Your task to perform on an android device: Open privacy settings Image 0: 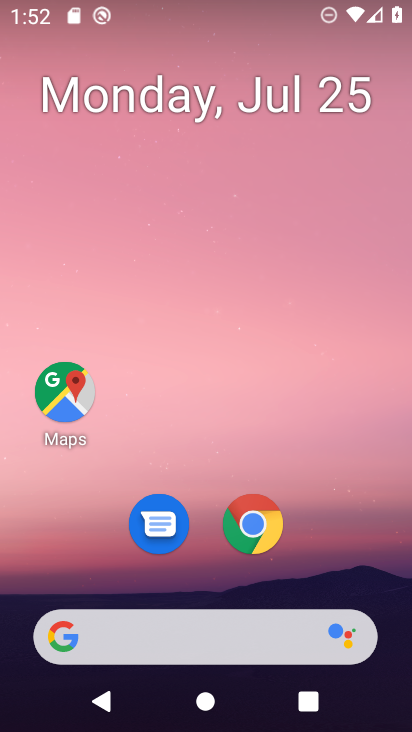
Step 0: drag from (150, 623) to (309, 100)
Your task to perform on an android device: Open privacy settings Image 1: 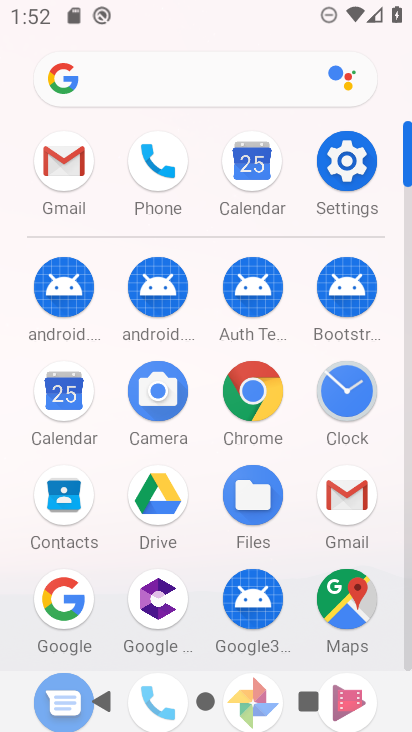
Step 1: click (354, 168)
Your task to perform on an android device: Open privacy settings Image 2: 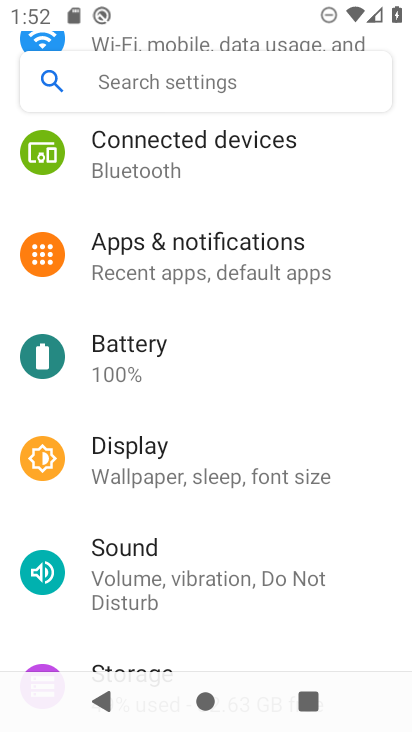
Step 2: drag from (266, 627) to (339, 213)
Your task to perform on an android device: Open privacy settings Image 3: 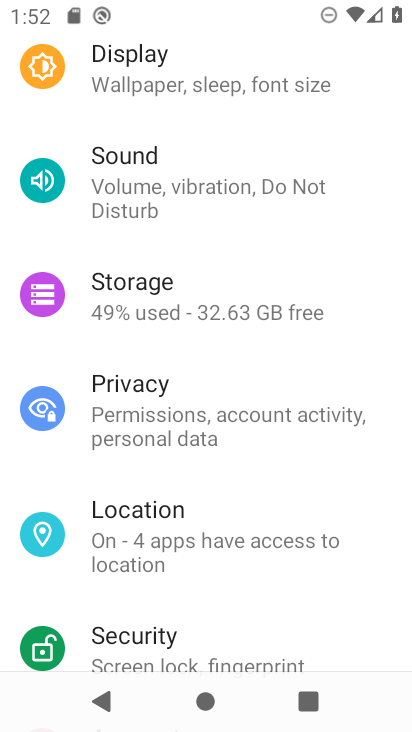
Step 3: click (148, 397)
Your task to perform on an android device: Open privacy settings Image 4: 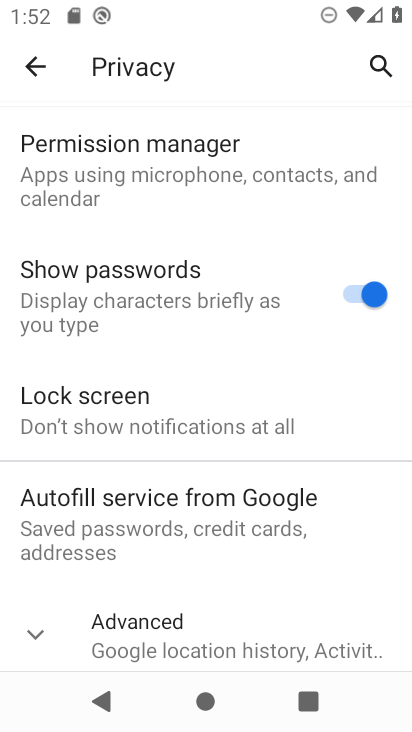
Step 4: task complete